Your task to perform on an android device: create a new album in the google photos Image 0: 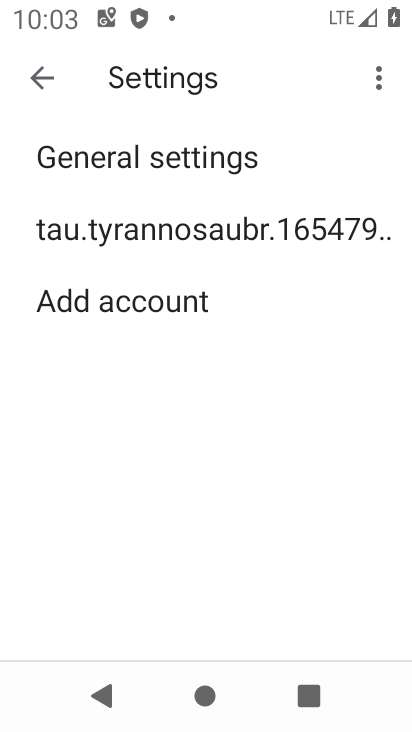
Step 0: press home button
Your task to perform on an android device: create a new album in the google photos Image 1: 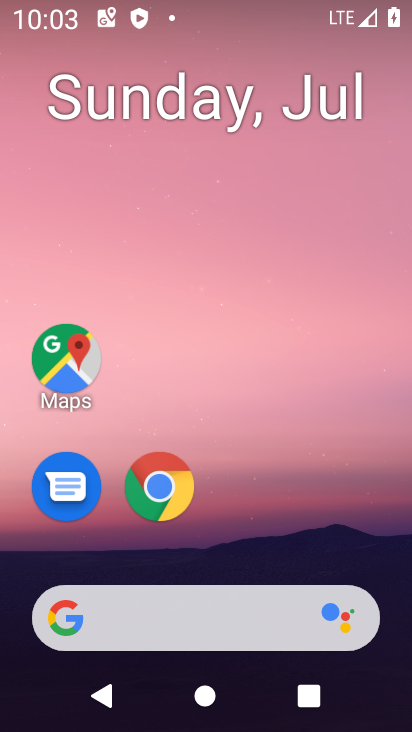
Step 1: drag from (359, 547) to (368, 76)
Your task to perform on an android device: create a new album in the google photos Image 2: 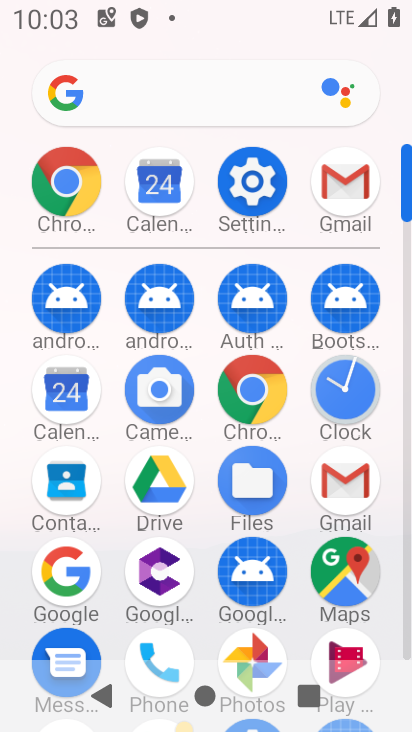
Step 2: drag from (390, 485) to (399, 269)
Your task to perform on an android device: create a new album in the google photos Image 3: 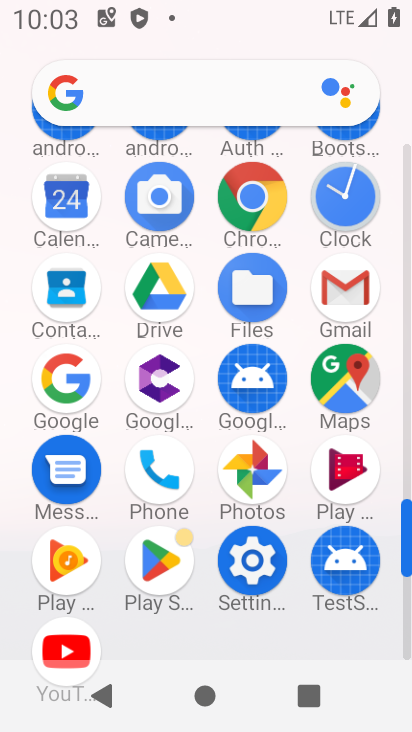
Step 3: click (252, 469)
Your task to perform on an android device: create a new album in the google photos Image 4: 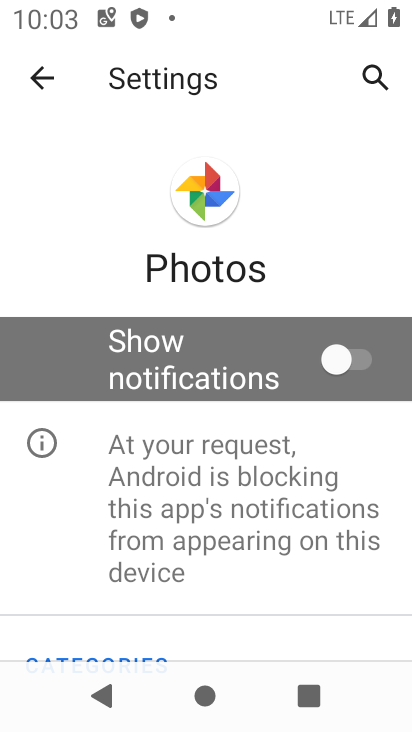
Step 4: press back button
Your task to perform on an android device: create a new album in the google photos Image 5: 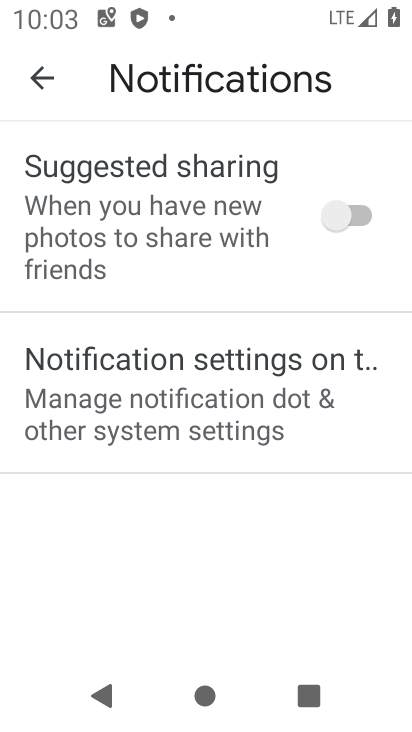
Step 5: press back button
Your task to perform on an android device: create a new album in the google photos Image 6: 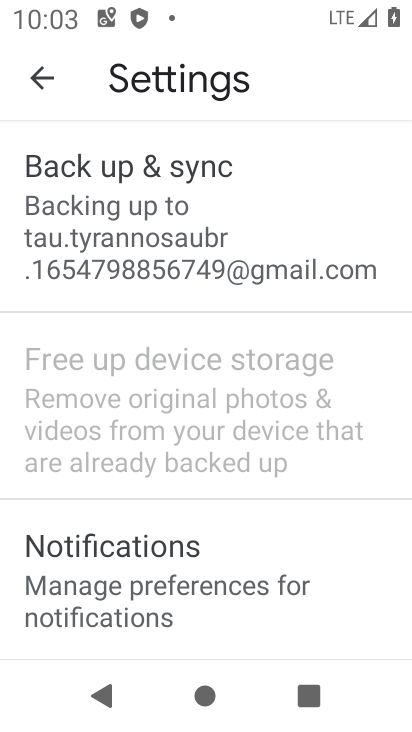
Step 6: press back button
Your task to perform on an android device: create a new album in the google photos Image 7: 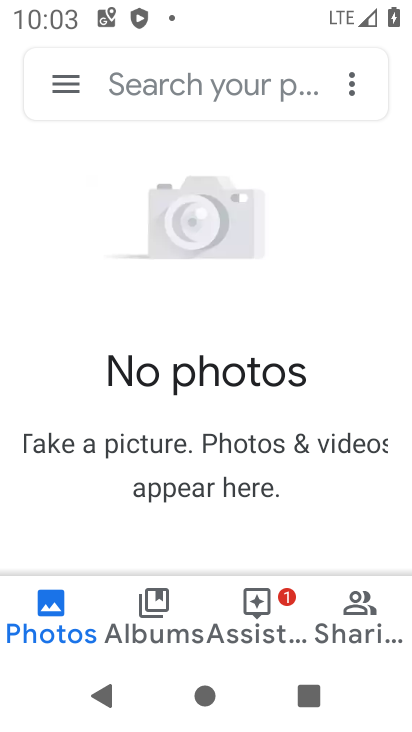
Step 7: click (353, 94)
Your task to perform on an android device: create a new album in the google photos Image 8: 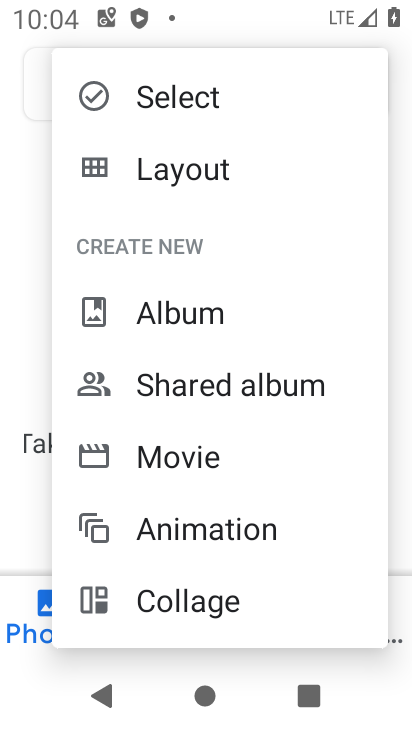
Step 8: drag from (323, 491) to (331, 290)
Your task to perform on an android device: create a new album in the google photos Image 9: 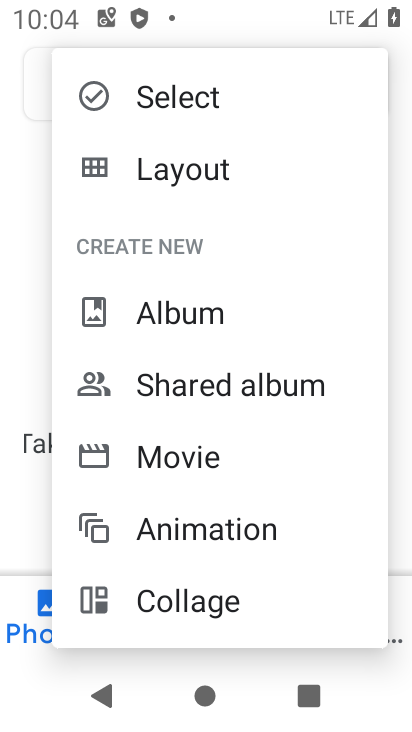
Step 9: click (227, 318)
Your task to perform on an android device: create a new album in the google photos Image 10: 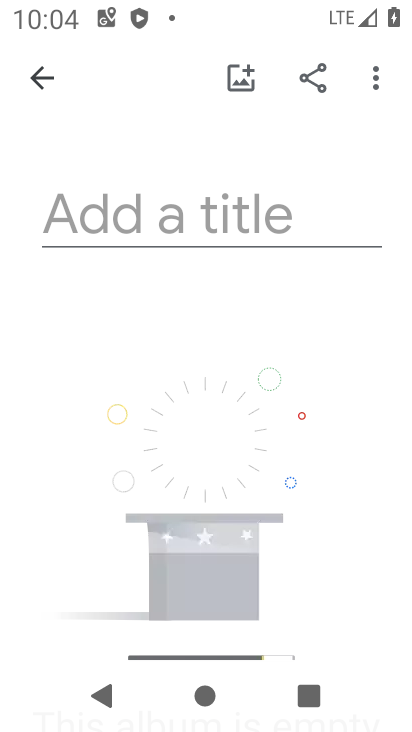
Step 10: click (249, 229)
Your task to perform on an android device: create a new album in the google photos Image 11: 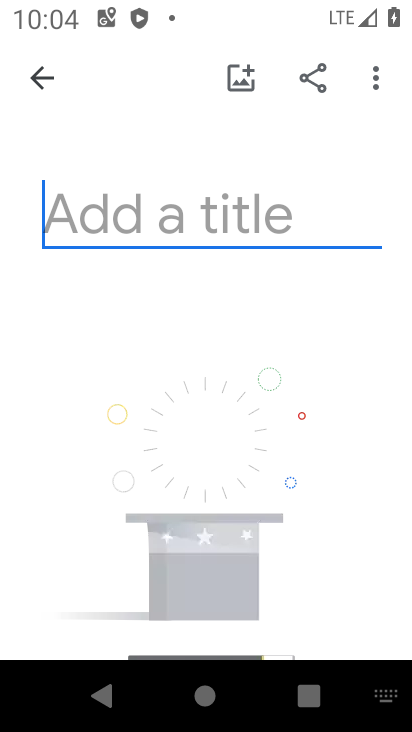
Step 11: type "fav"
Your task to perform on an android device: create a new album in the google photos Image 12: 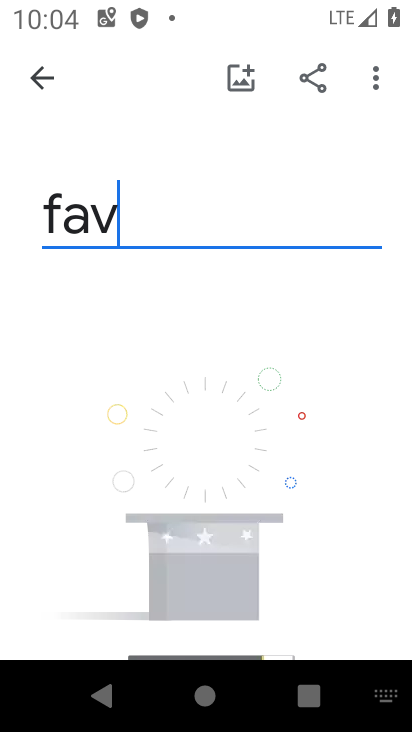
Step 12: drag from (298, 594) to (351, 170)
Your task to perform on an android device: create a new album in the google photos Image 13: 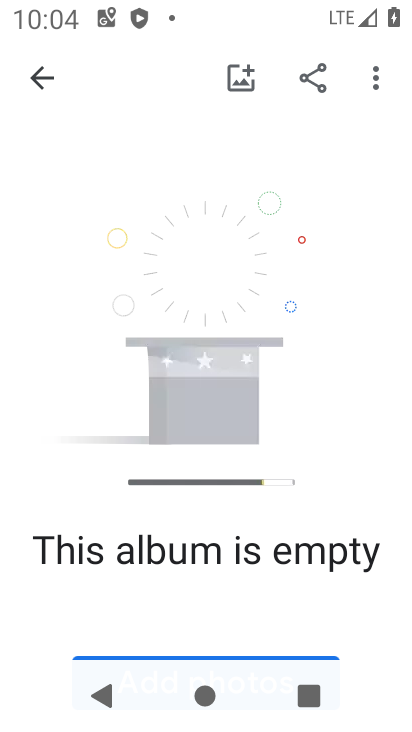
Step 13: drag from (288, 605) to (308, 353)
Your task to perform on an android device: create a new album in the google photos Image 14: 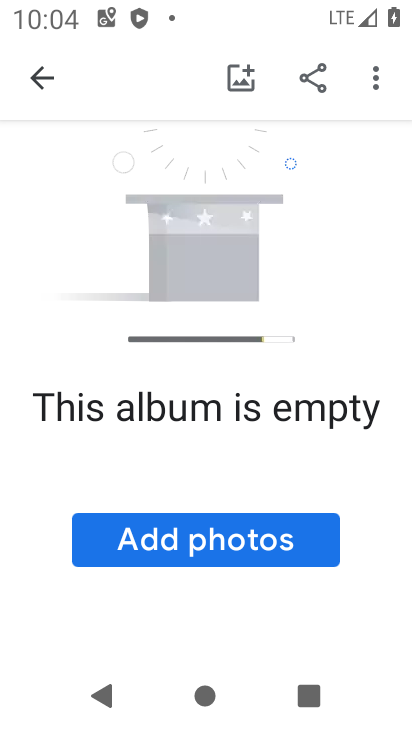
Step 14: click (216, 554)
Your task to perform on an android device: create a new album in the google photos Image 15: 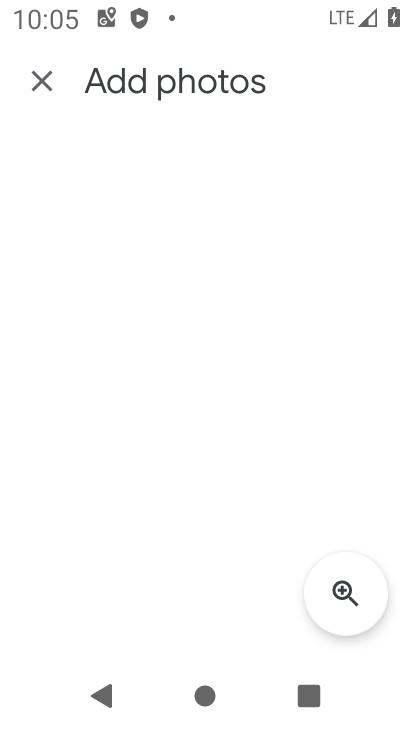
Step 15: task complete